Your task to perform on an android device: turn on notifications settings in the gmail app Image 0: 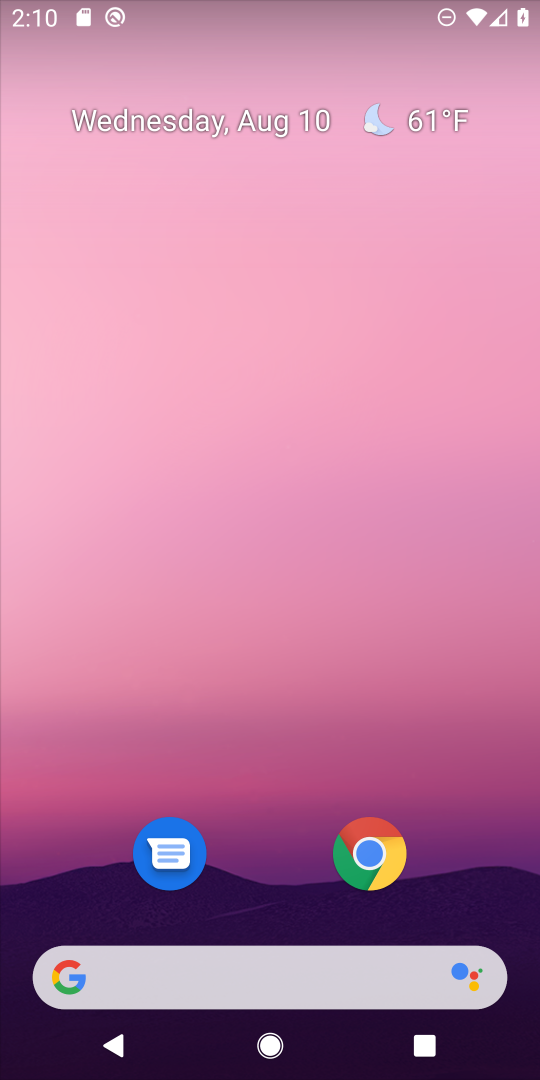
Step 0: drag from (292, 697) to (323, 161)
Your task to perform on an android device: turn on notifications settings in the gmail app Image 1: 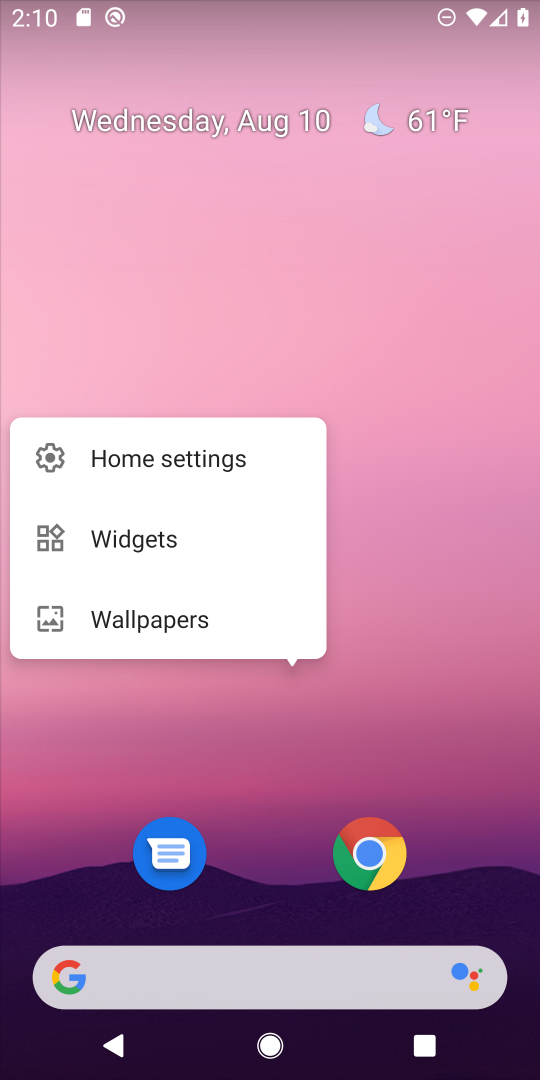
Step 1: click (421, 631)
Your task to perform on an android device: turn on notifications settings in the gmail app Image 2: 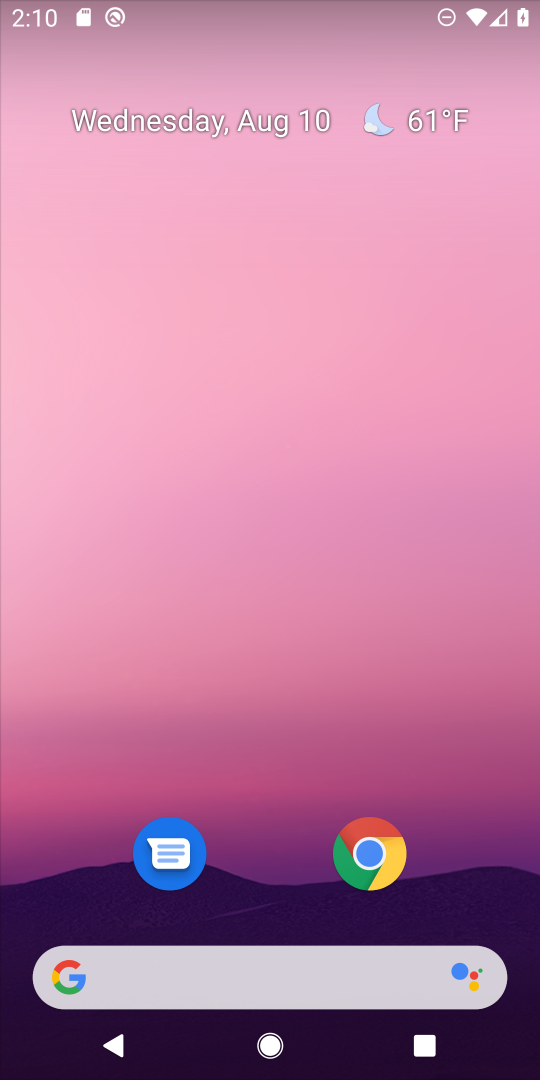
Step 2: click (421, 631)
Your task to perform on an android device: turn on notifications settings in the gmail app Image 3: 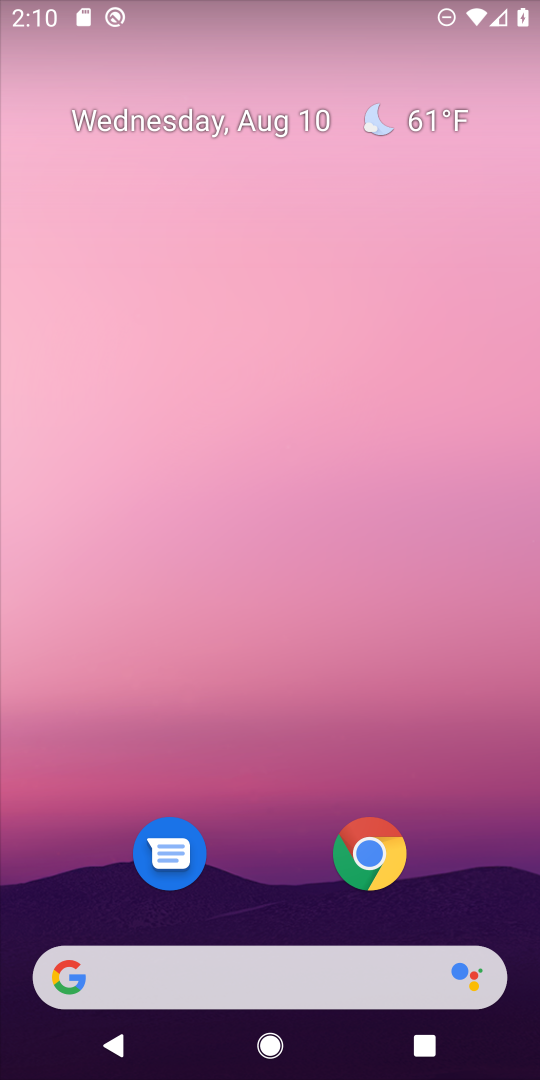
Step 3: drag from (255, 668) to (295, 155)
Your task to perform on an android device: turn on notifications settings in the gmail app Image 4: 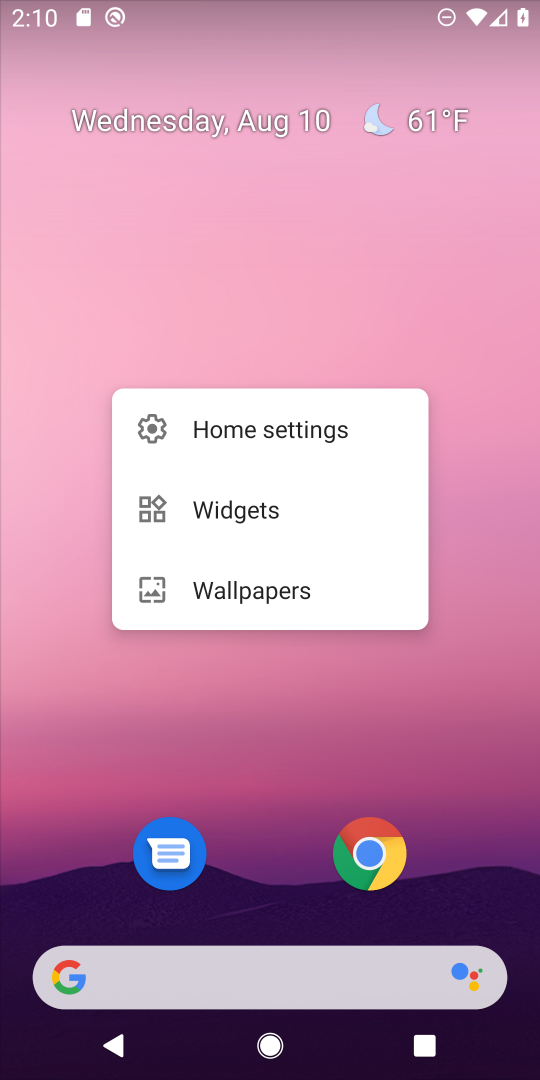
Step 4: click (509, 538)
Your task to perform on an android device: turn on notifications settings in the gmail app Image 5: 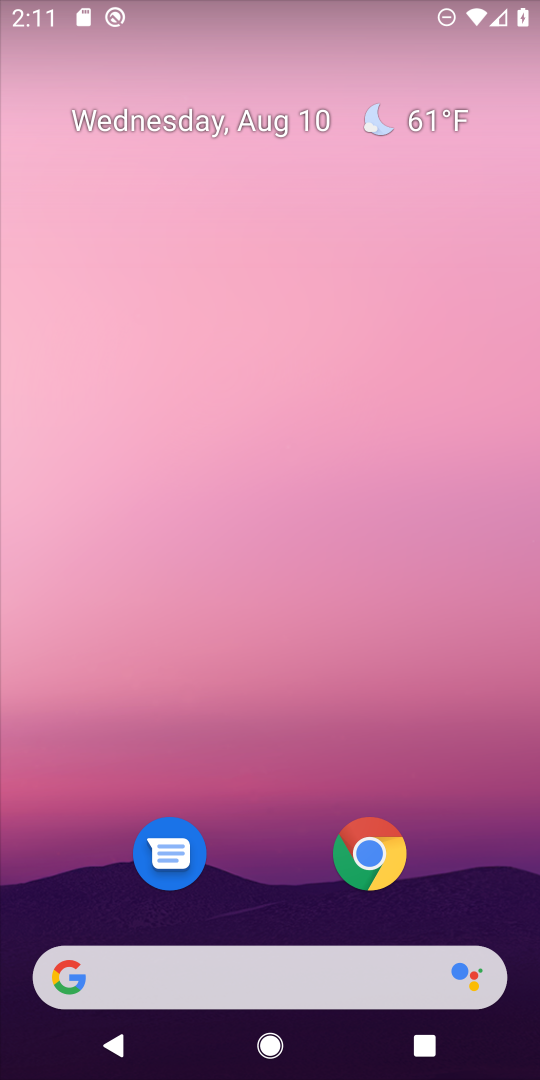
Step 5: drag from (199, 578) to (280, 125)
Your task to perform on an android device: turn on notifications settings in the gmail app Image 6: 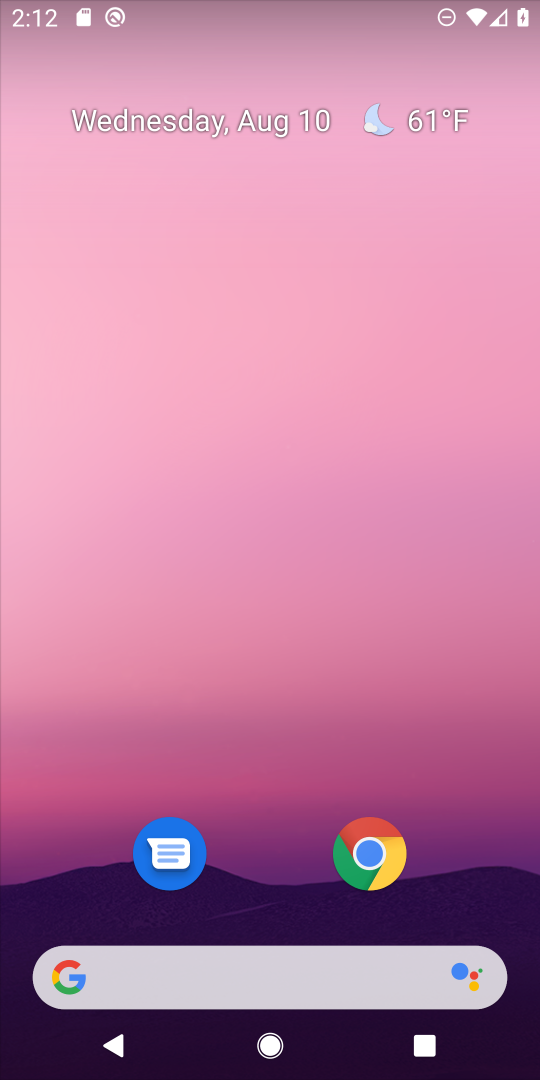
Step 6: drag from (280, 468) to (393, 18)
Your task to perform on an android device: turn on notifications settings in the gmail app Image 7: 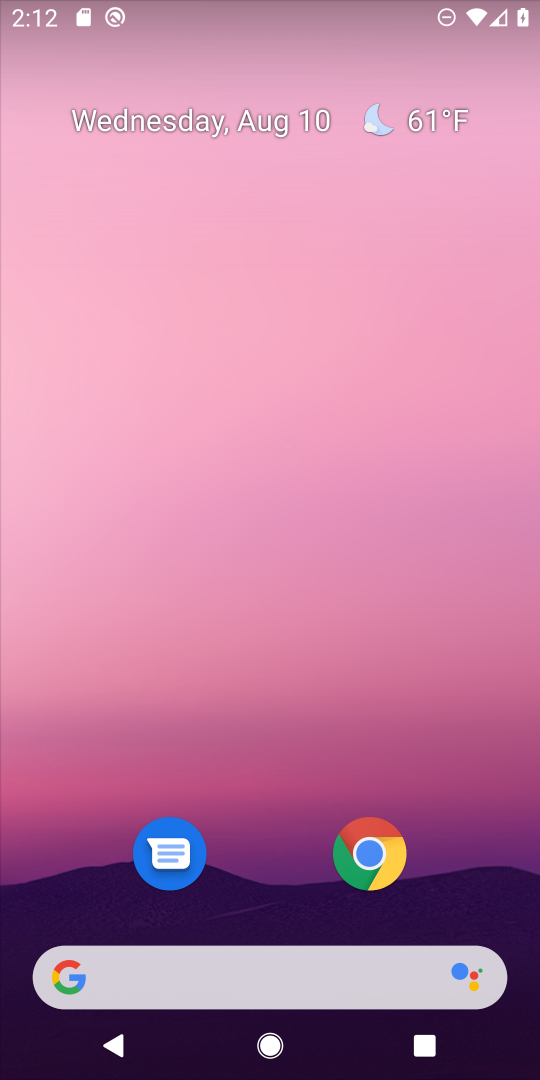
Step 7: drag from (350, 628) to (449, 77)
Your task to perform on an android device: turn on notifications settings in the gmail app Image 8: 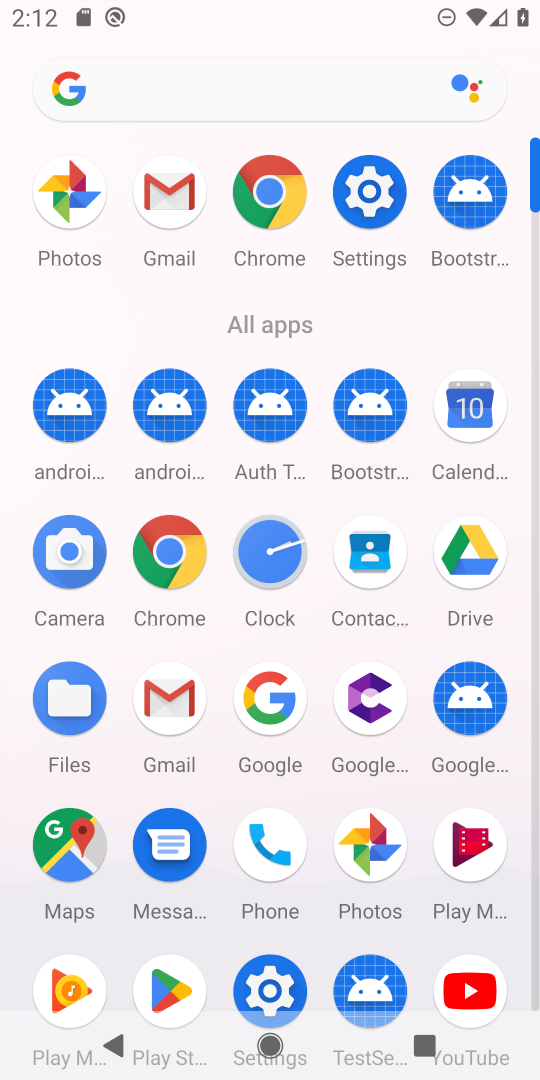
Step 8: click (168, 708)
Your task to perform on an android device: turn on notifications settings in the gmail app Image 9: 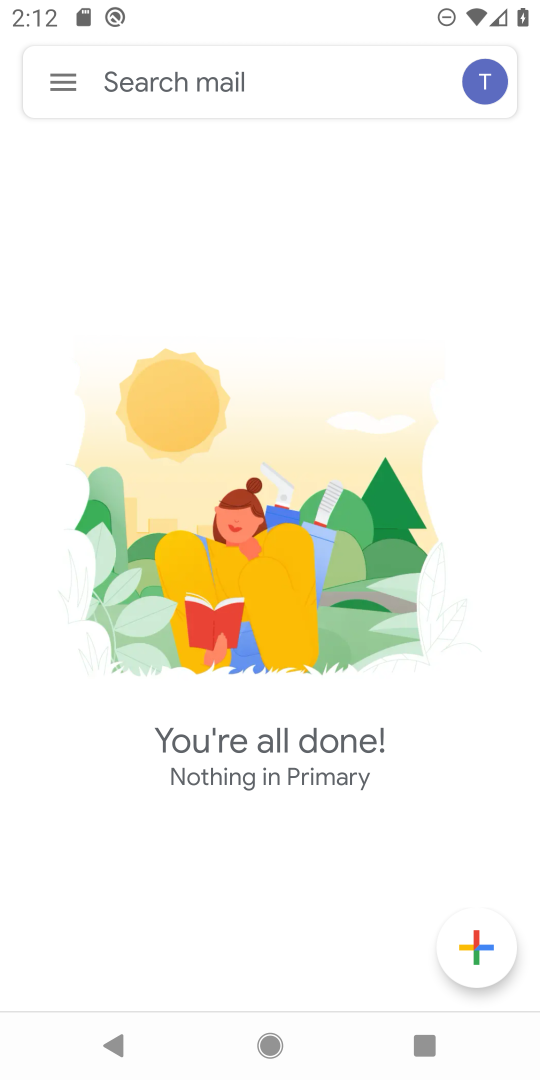
Step 9: task complete